Your task to perform on an android device: check google app version Image 0: 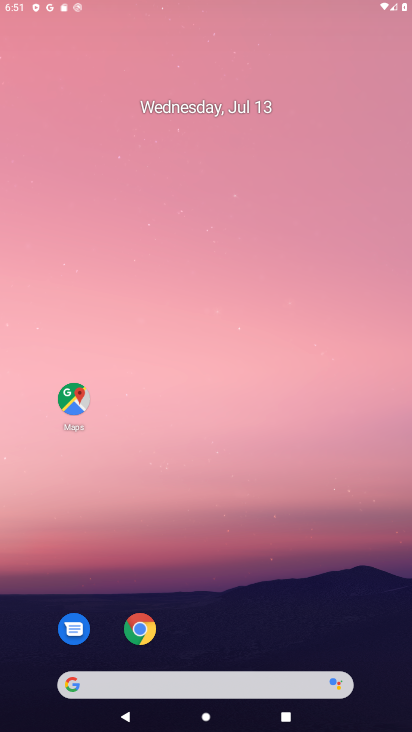
Step 0: press home button
Your task to perform on an android device: check google app version Image 1: 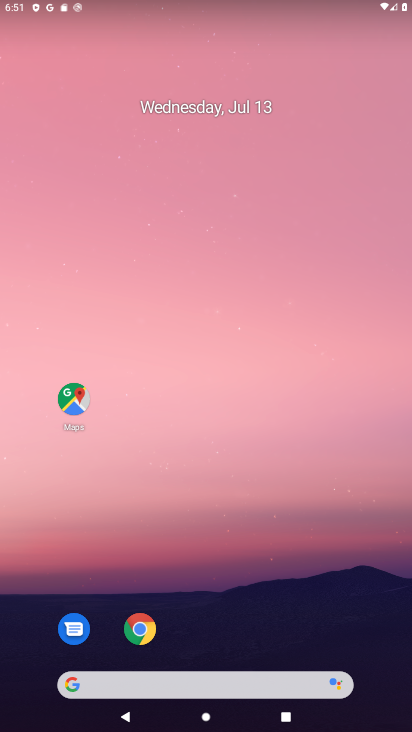
Step 1: click (139, 639)
Your task to perform on an android device: check google app version Image 2: 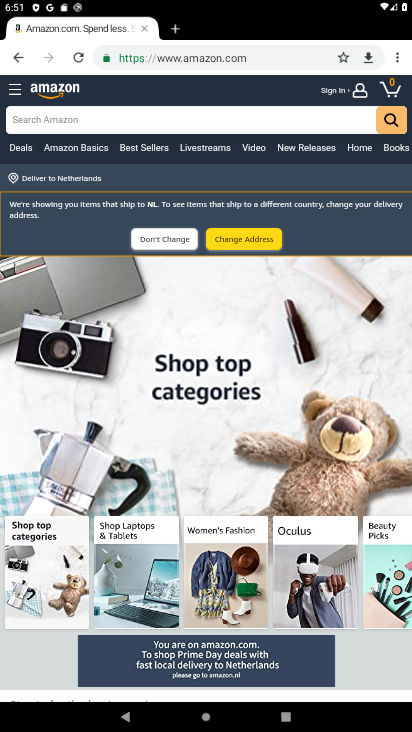
Step 2: click (400, 61)
Your task to perform on an android device: check google app version Image 3: 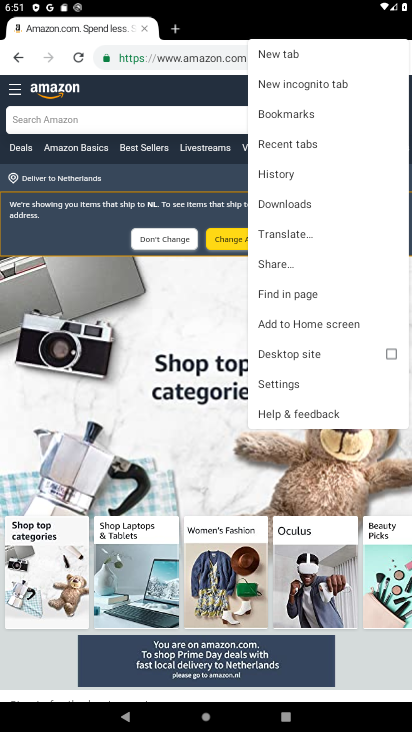
Step 3: click (281, 379)
Your task to perform on an android device: check google app version Image 4: 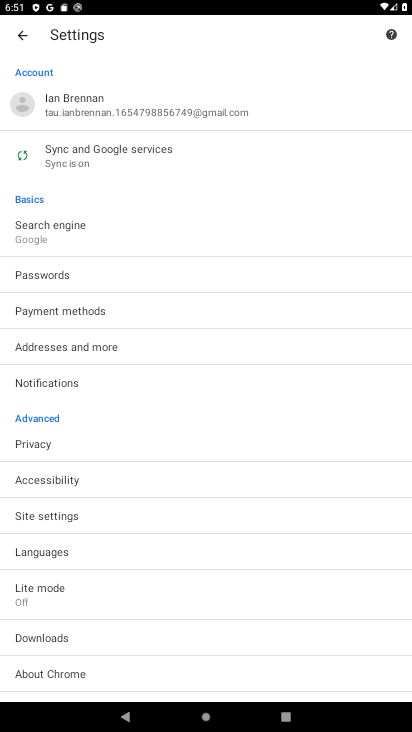
Step 4: click (59, 681)
Your task to perform on an android device: check google app version Image 5: 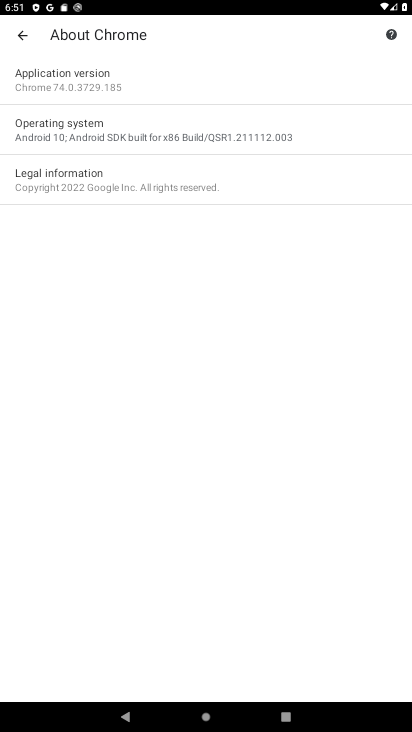
Step 5: click (68, 86)
Your task to perform on an android device: check google app version Image 6: 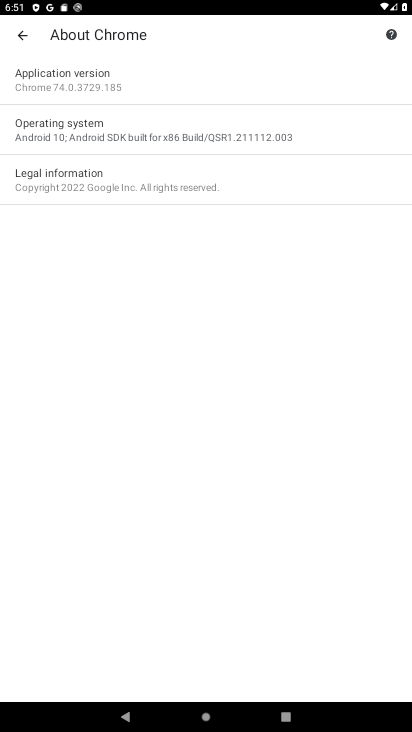
Step 6: task complete